Your task to perform on an android device: see creations saved in the google photos Image 0: 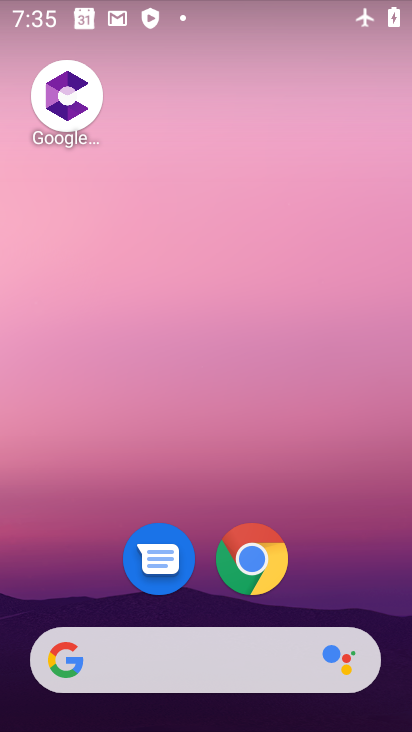
Step 0: drag from (339, 562) to (222, 138)
Your task to perform on an android device: see creations saved in the google photos Image 1: 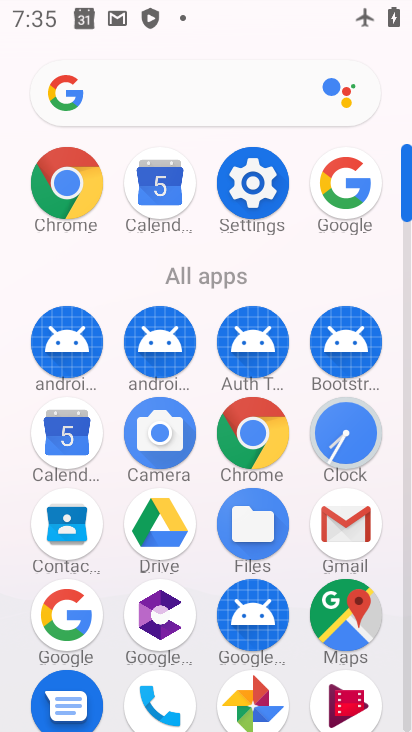
Step 1: drag from (297, 297) to (287, 154)
Your task to perform on an android device: see creations saved in the google photos Image 2: 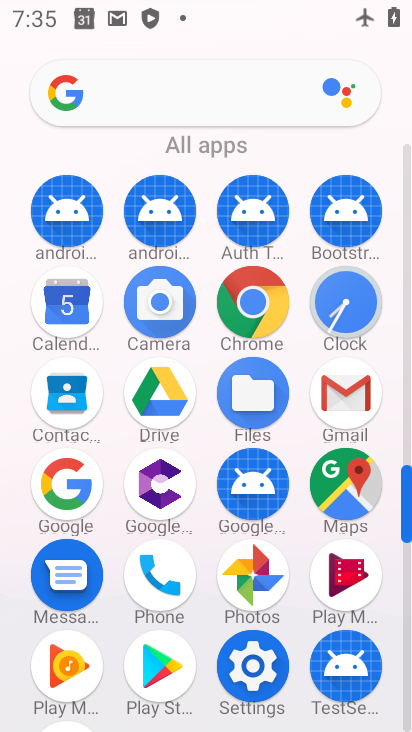
Step 2: drag from (303, 446) to (305, 345)
Your task to perform on an android device: see creations saved in the google photos Image 3: 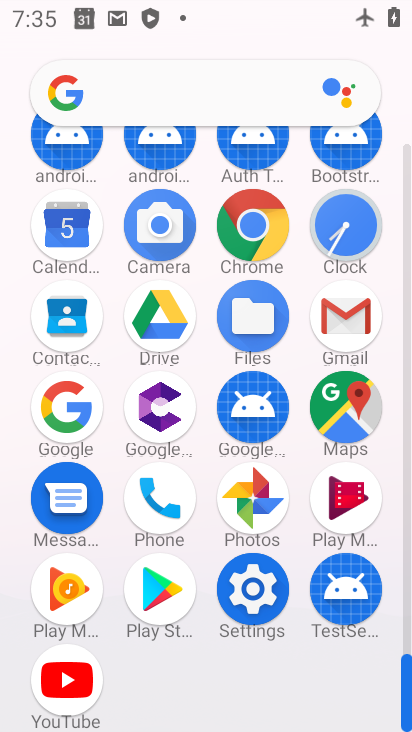
Step 3: click (254, 496)
Your task to perform on an android device: see creations saved in the google photos Image 4: 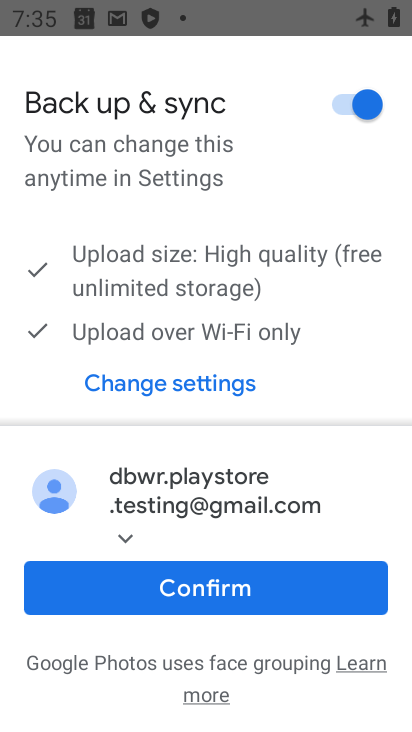
Step 4: click (212, 591)
Your task to perform on an android device: see creations saved in the google photos Image 5: 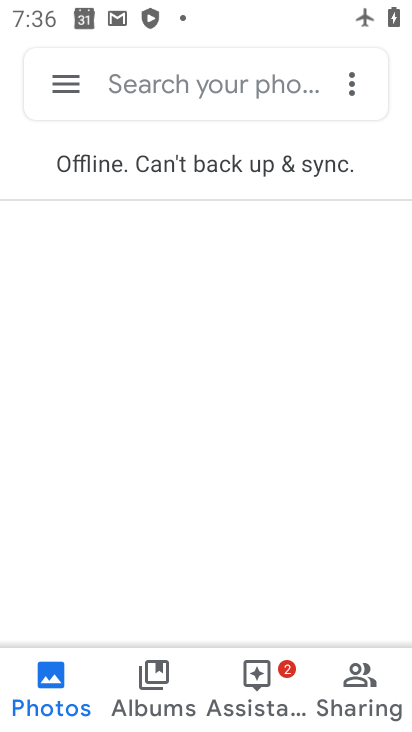
Step 5: click (148, 674)
Your task to perform on an android device: see creations saved in the google photos Image 6: 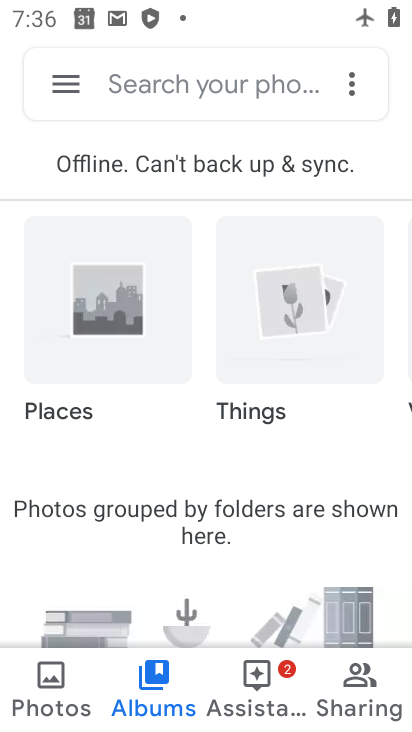
Step 6: click (68, 688)
Your task to perform on an android device: see creations saved in the google photos Image 7: 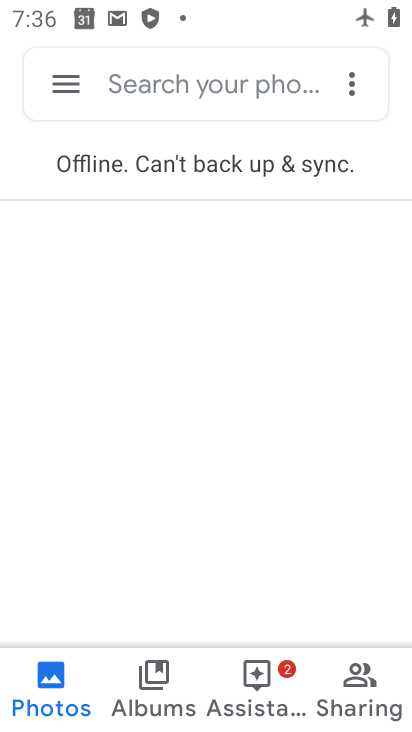
Step 7: click (53, 74)
Your task to perform on an android device: see creations saved in the google photos Image 8: 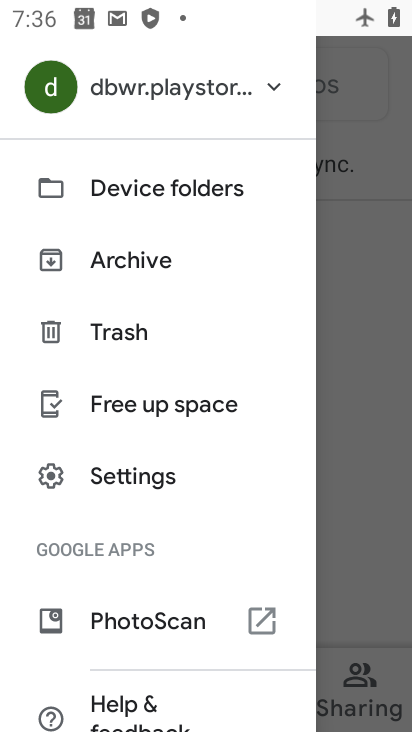
Step 8: click (148, 487)
Your task to perform on an android device: see creations saved in the google photos Image 9: 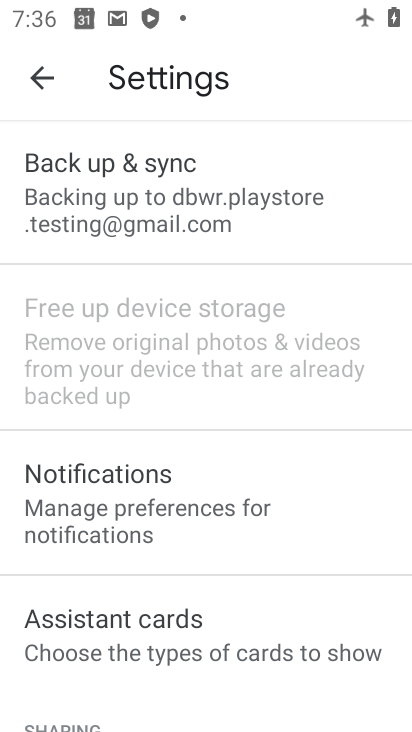
Step 9: drag from (182, 446) to (249, 335)
Your task to perform on an android device: see creations saved in the google photos Image 10: 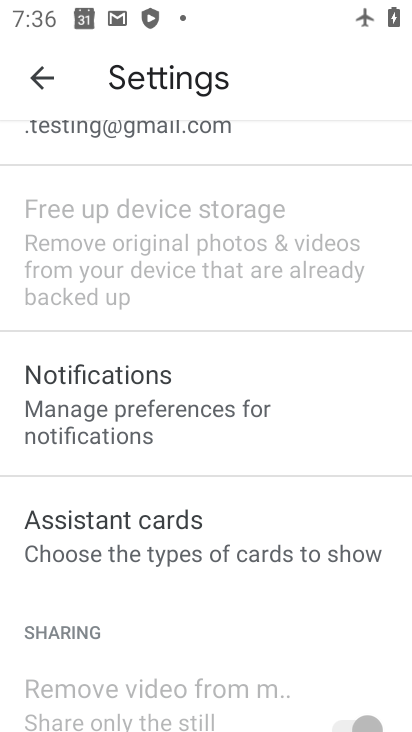
Step 10: drag from (190, 456) to (248, 350)
Your task to perform on an android device: see creations saved in the google photos Image 11: 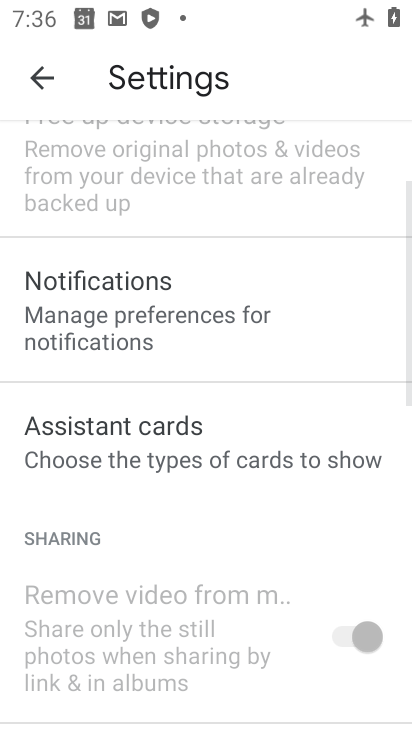
Step 11: drag from (184, 516) to (258, 419)
Your task to perform on an android device: see creations saved in the google photos Image 12: 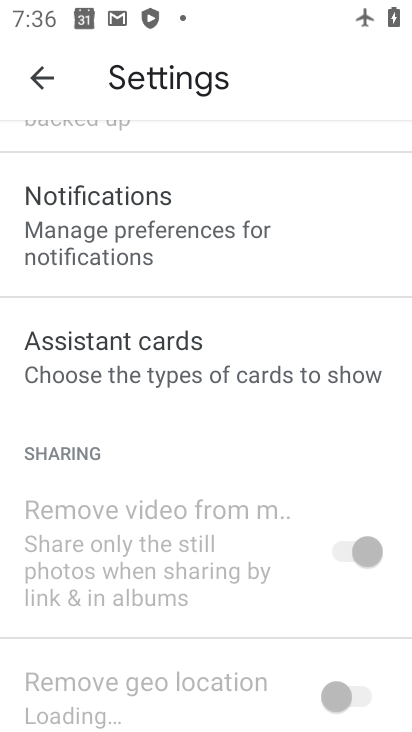
Step 12: drag from (171, 611) to (264, 381)
Your task to perform on an android device: see creations saved in the google photos Image 13: 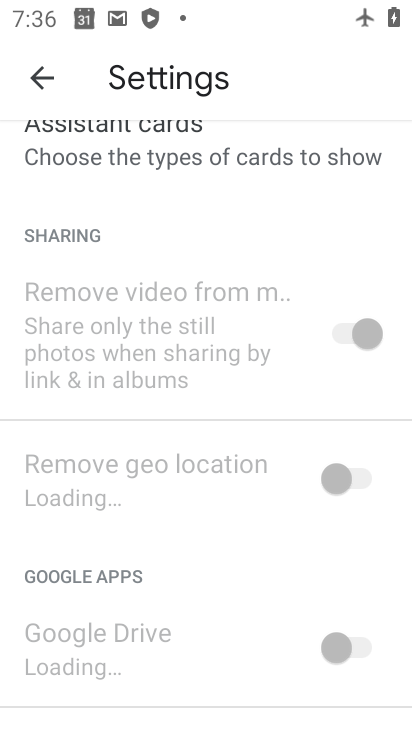
Step 13: drag from (203, 477) to (265, 359)
Your task to perform on an android device: see creations saved in the google photos Image 14: 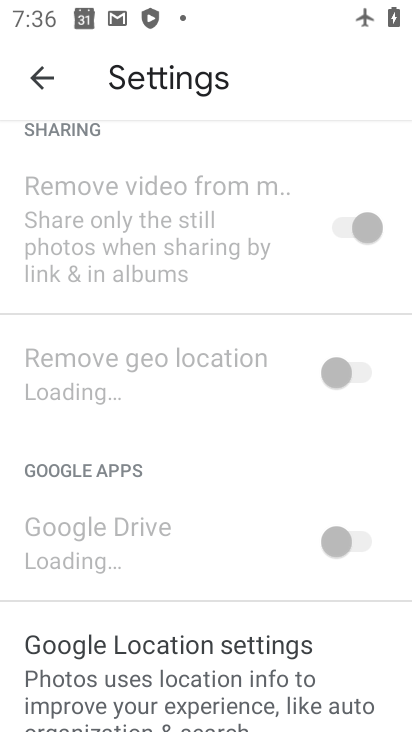
Step 14: drag from (216, 624) to (313, 486)
Your task to perform on an android device: see creations saved in the google photos Image 15: 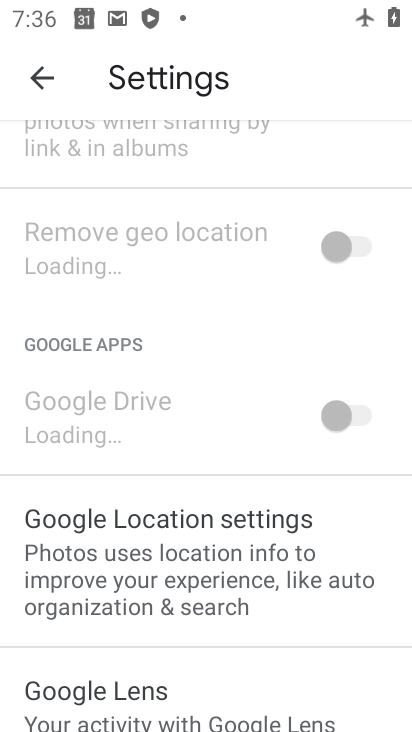
Step 15: drag from (259, 643) to (320, 533)
Your task to perform on an android device: see creations saved in the google photos Image 16: 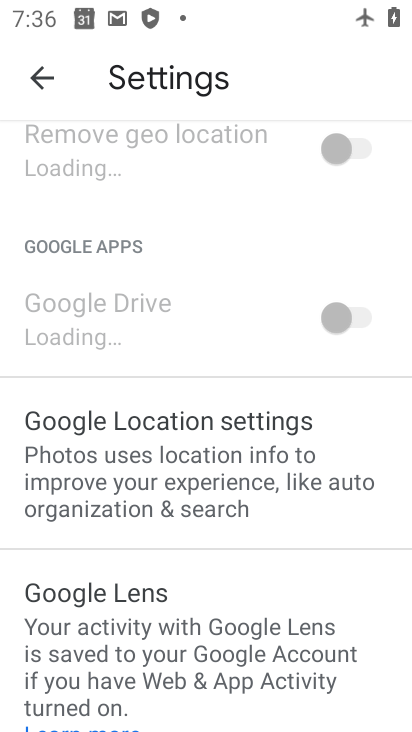
Step 16: drag from (239, 669) to (315, 557)
Your task to perform on an android device: see creations saved in the google photos Image 17: 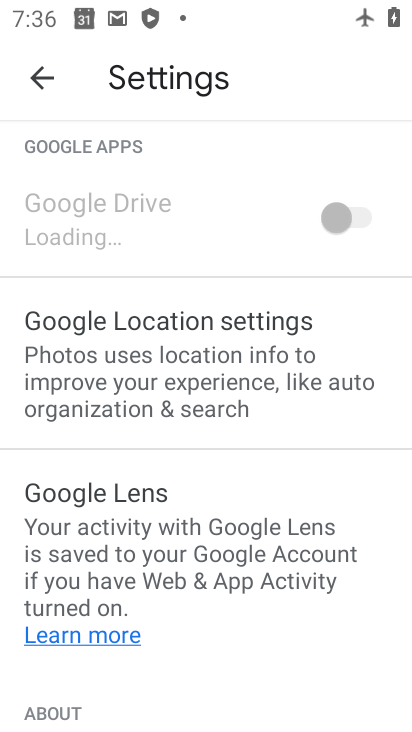
Step 17: drag from (220, 650) to (290, 493)
Your task to perform on an android device: see creations saved in the google photos Image 18: 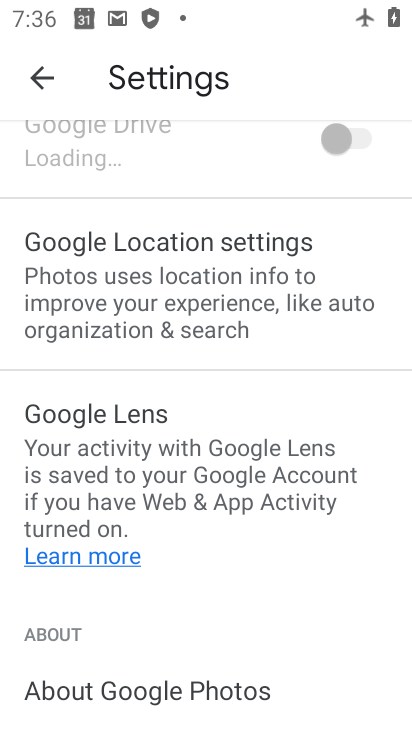
Step 18: drag from (220, 310) to (152, 512)
Your task to perform on an android device: see creations saved in the google photos Image 19: 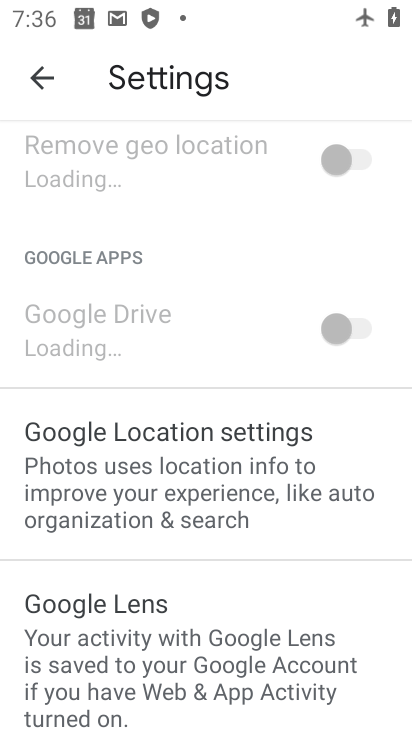
Step 19: drag from (202, 291) to (224, 448)
Your task to perform on an android device: see creations saved in the google photos Image 20: 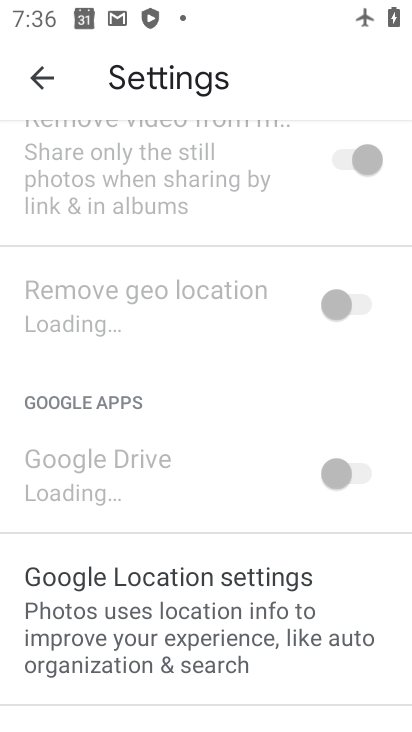
Step 20: drag from (212, 204) to (258, 502)
Your task to perform on an android device: see creations saved in the google photos Image 21: 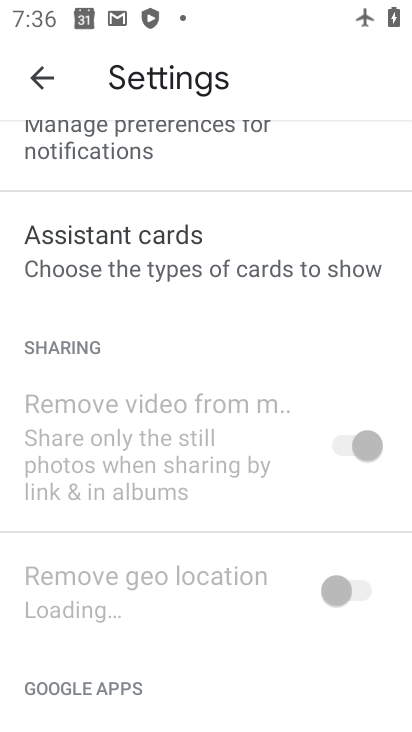
Step 21: drag from (282, 274) to (259, 499)
Your task to perform on an android device: see creations saved in the google photos Image 22: 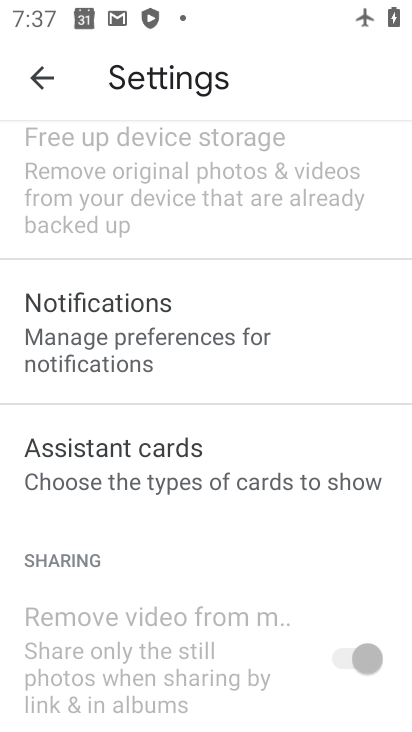
Step 22: drag from (239, 272) to (245, 391)
Your task to perform on an android device: see creations saved in the google photos Image 23: 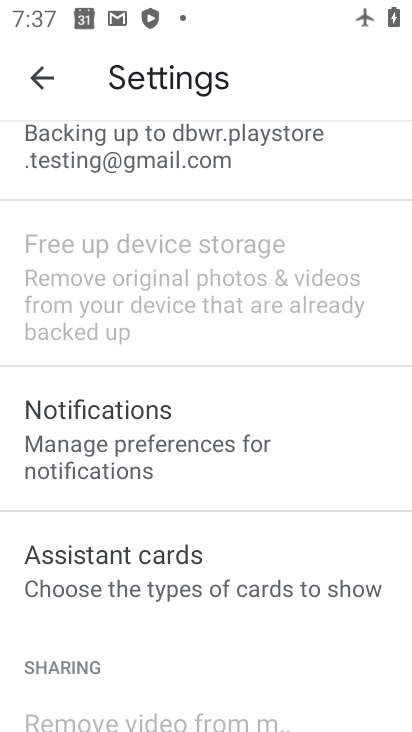
Step 23: drag from (289, 197) to (317, 400)
Your task to perform on an android device: see creations saved in the google photos Image 24: 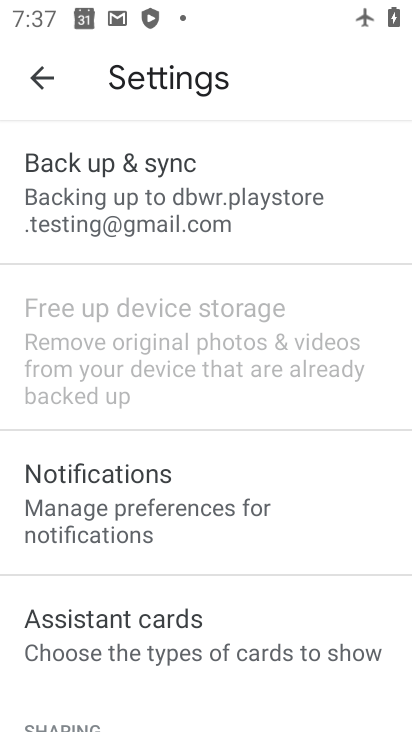
Step 24: click (194, 227)
Your task to perform on an android device: see creations saved in the google photos Image 25: 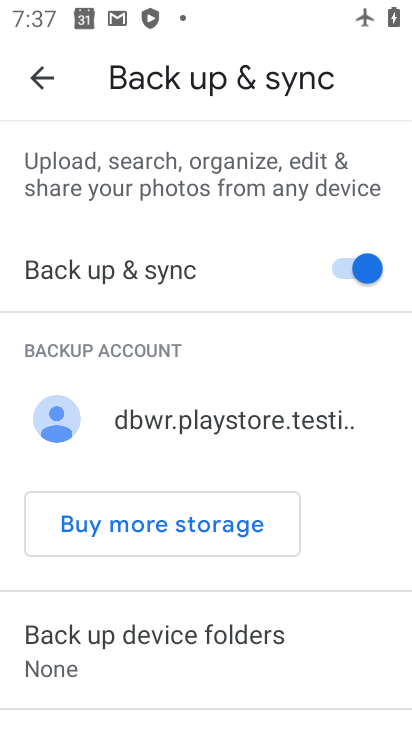
Step 25: task complete